Your task to perform on an android device: What is the recent news? Image 0: 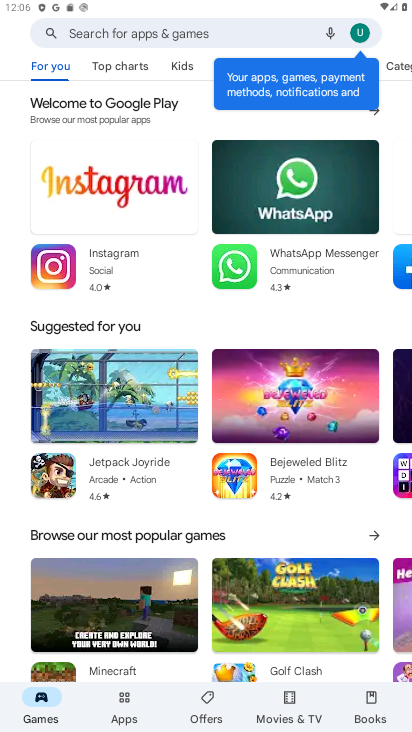
Step 0: press home button
Your task to perform on an android device: What is the recent news? Image 1: 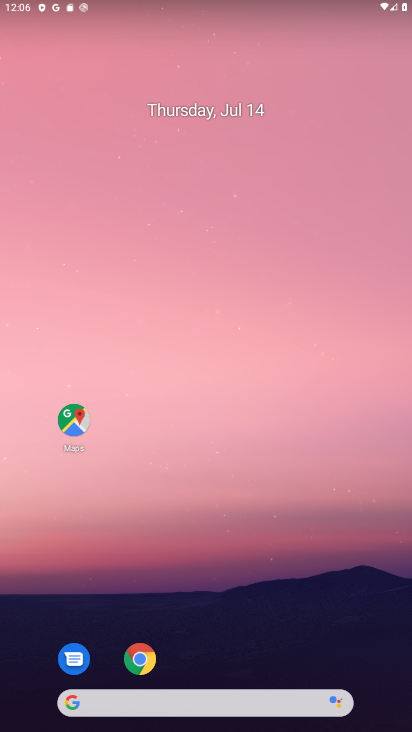
Step 1: click (221, 694)
Your task to perform on an android device: What is the recent news? Image 2: 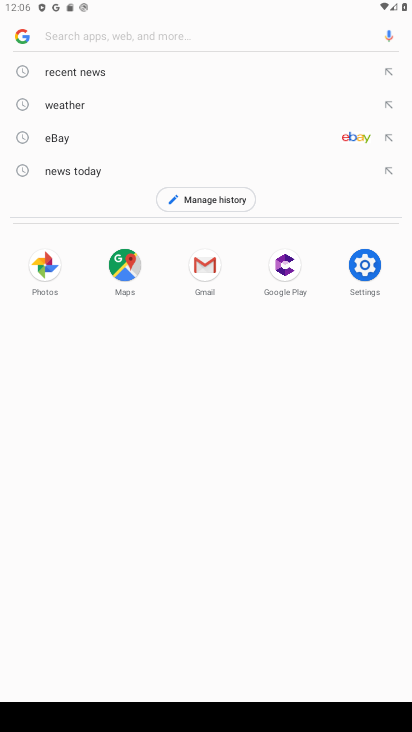
Step 2: type "What is the recent news?"
Your task to perform on an android device: What is the recent news? Image 3: 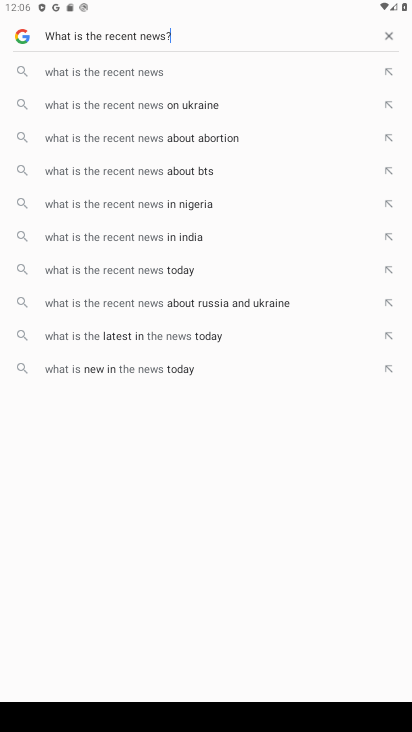
Step 3: type ""
Your task to perform on an android device: What is the recent news? Image 4: 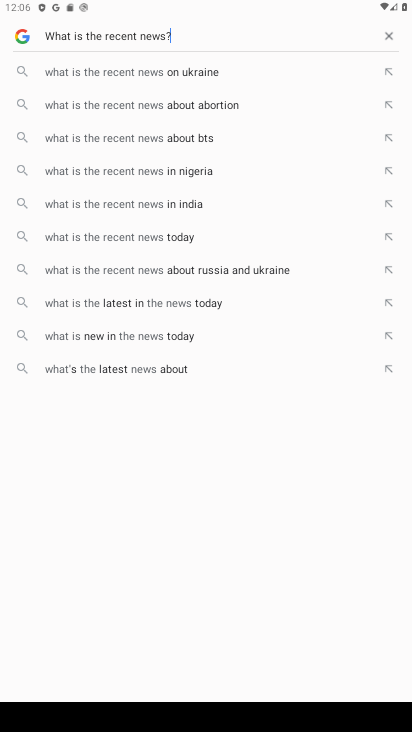
Step 4: type ""
Your task to perform on an android device: What is the recent news? Image 5: 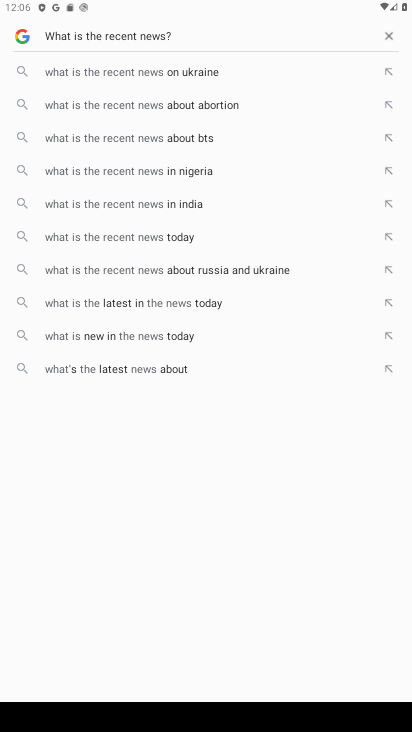
Step 5: task complete